Your task to perform on an android device: Go to Google Image 0: 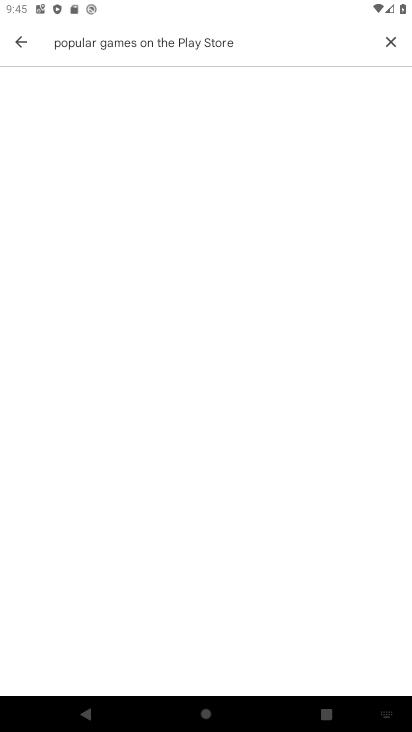
Step 0: press home button
Your task to perform on an android device: Go to Google Image 1: 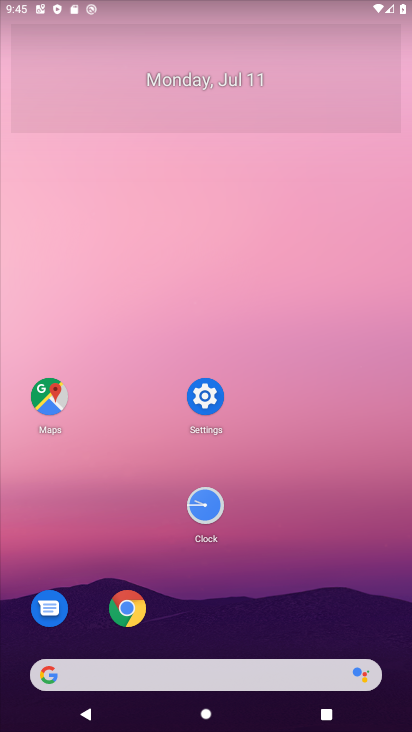
Step 1: drag from (397, 681) to (401, 209)
Your task to perform on an android device: Go to Google Image 2: 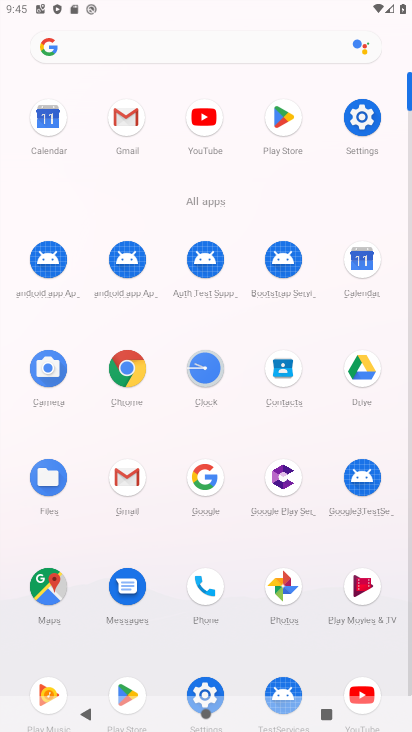
Step 2: click (206, 476)
Your task to perform on an android device: Go to Google Image 3: 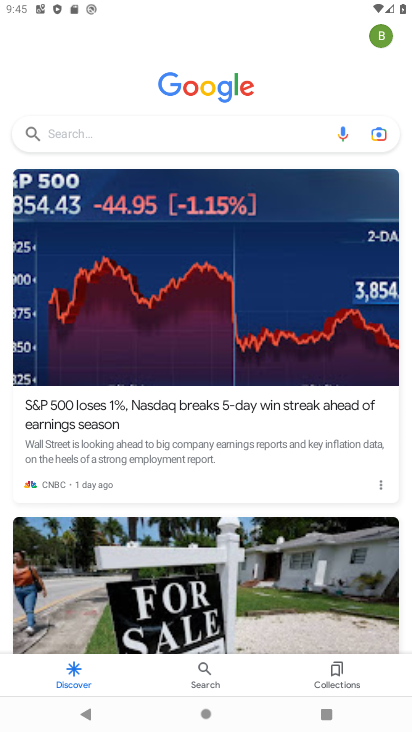
Step 3: task complete